Your task to perform on an android device: Empty the shopping cart on costco. Add usb-c to the cart on costco, then select checkout. Image 0: 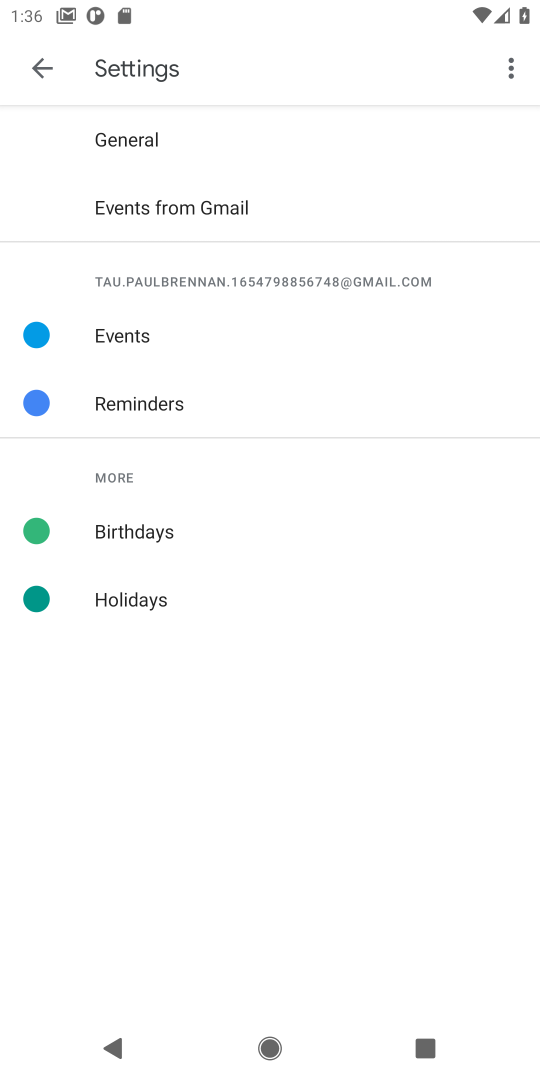
Step 0: press home button
Your task to perform on an android device: Empty the shopping cart on costco. Add usb-c to the cart on costco, then select checkout. Image 1: 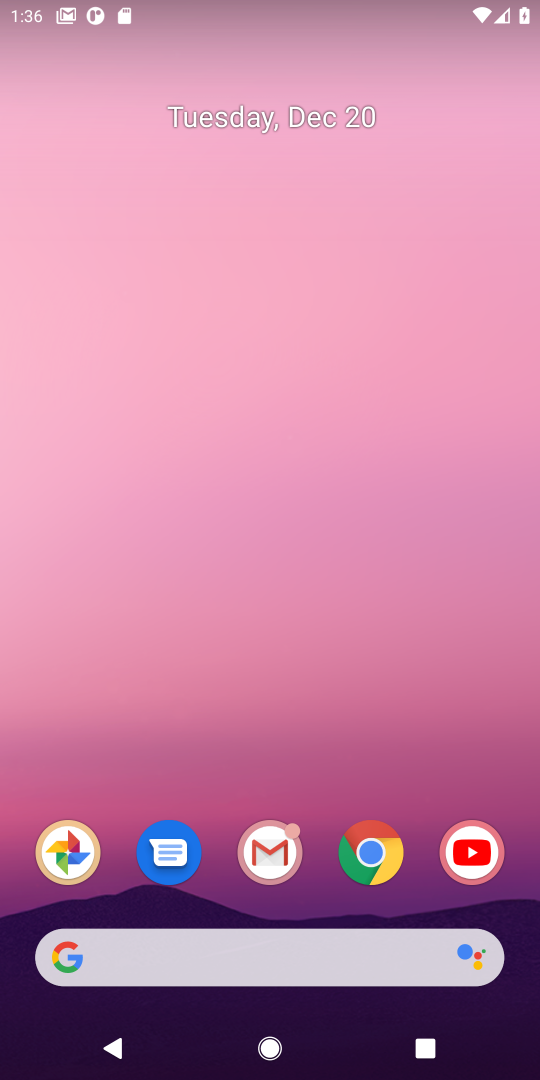
Step 1: click (358, 862)
Your task to perform on an android device: Empty the shopping cart on costco. Add usb-c to the cart on costco, then select checkout. Image 2: 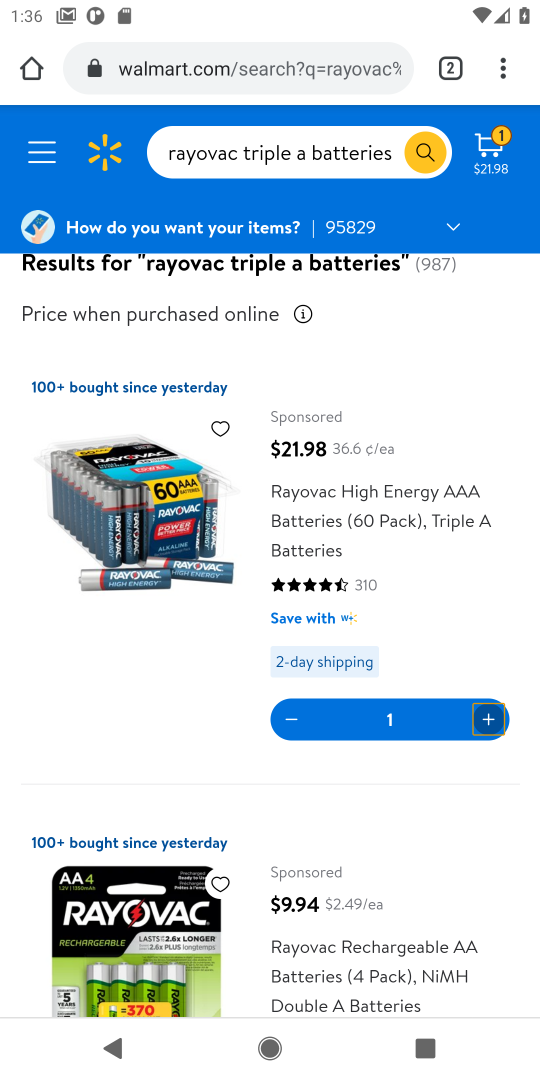
Step 2: click (204, 71)
Your task to perform on an android device: Empty the shopping cart on costco. Add usb-c to the cart on costco, then select checkout. Image 3: 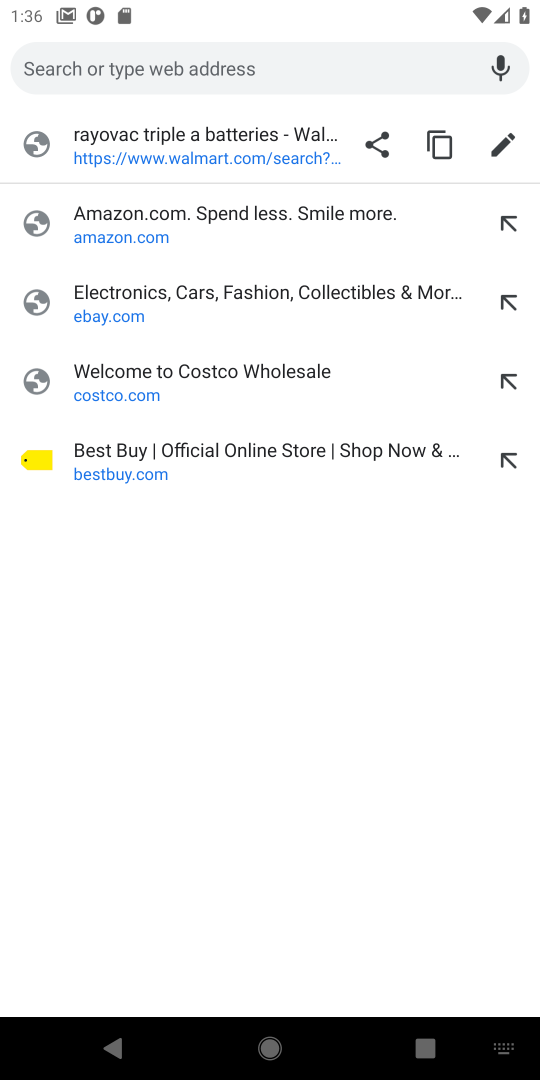
Step 3: click (93, 357)
Your task to perform on an android device: Empty the shopping cart on costco. Add usb-c to the cart on costco, then select checkout. Image 4: 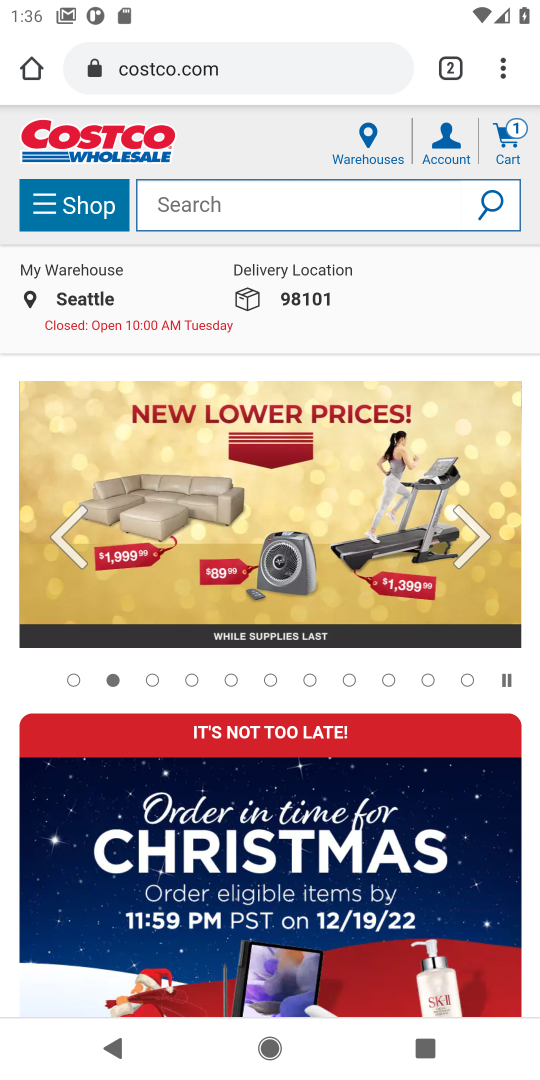
Step 4: click (506, 149)
Your task to perform on an android device: Empty the shopping cart on costco. Add usb-c to the cart on costco, then select checkout. Image 5: 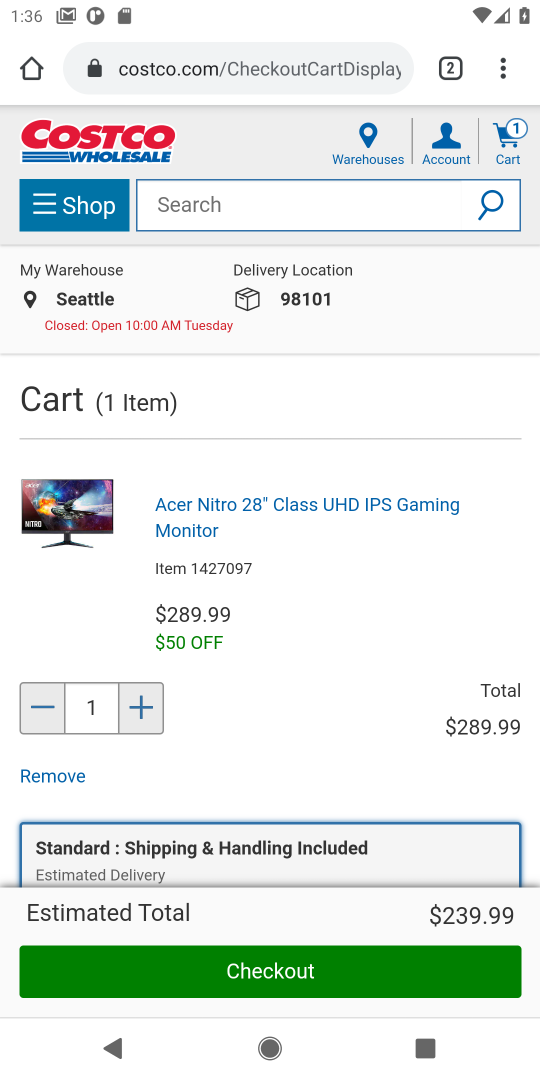
Step 5: drag from (233, 681) to (236, 393)
Your task to perform on an android device: Empty the shopping cart on costco. Add usb-c to the cart on costco, then select checkout. Image 6: 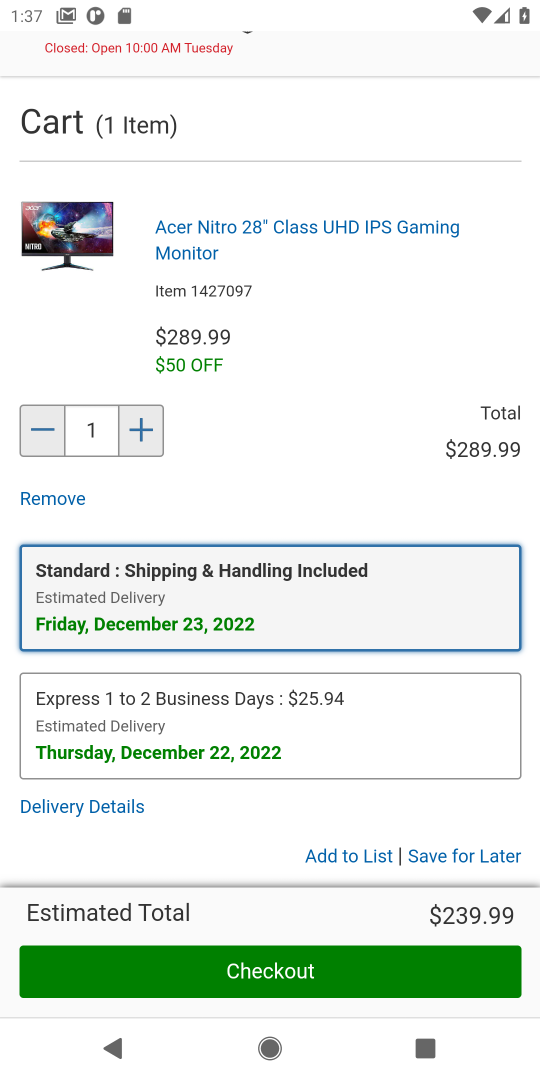
Step 6: click (494, 863)
Your task to perform on an android device: Empty the shopping cart on costco. Add usb-c to the cart on costco, then select checkout. Image 7: 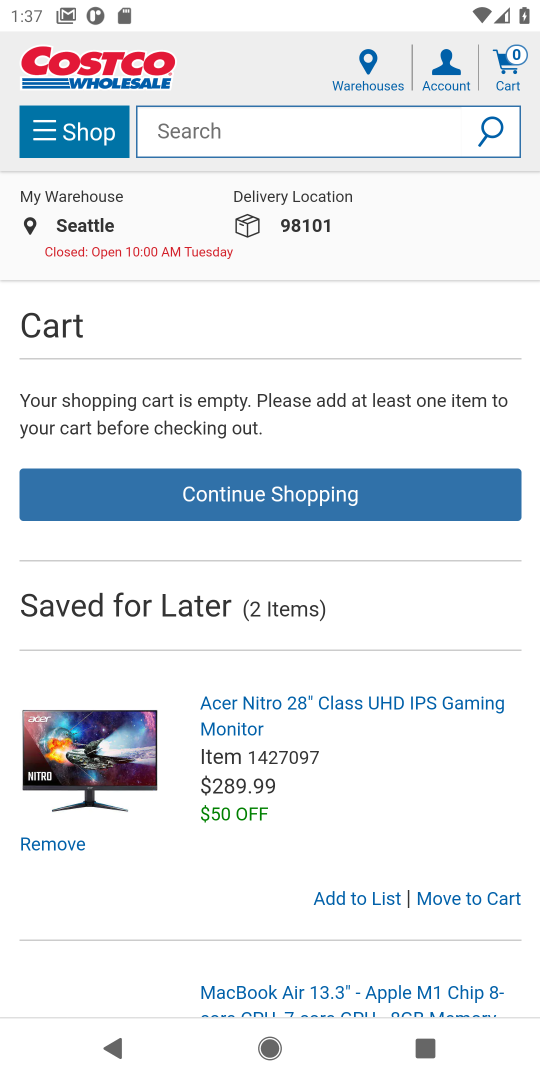
Step 7: click (238, 142)
Your task to perform on an android device: Empty the shopping cart on costco. Add usb-c to the cart on costco, then select checkout. Image 8: 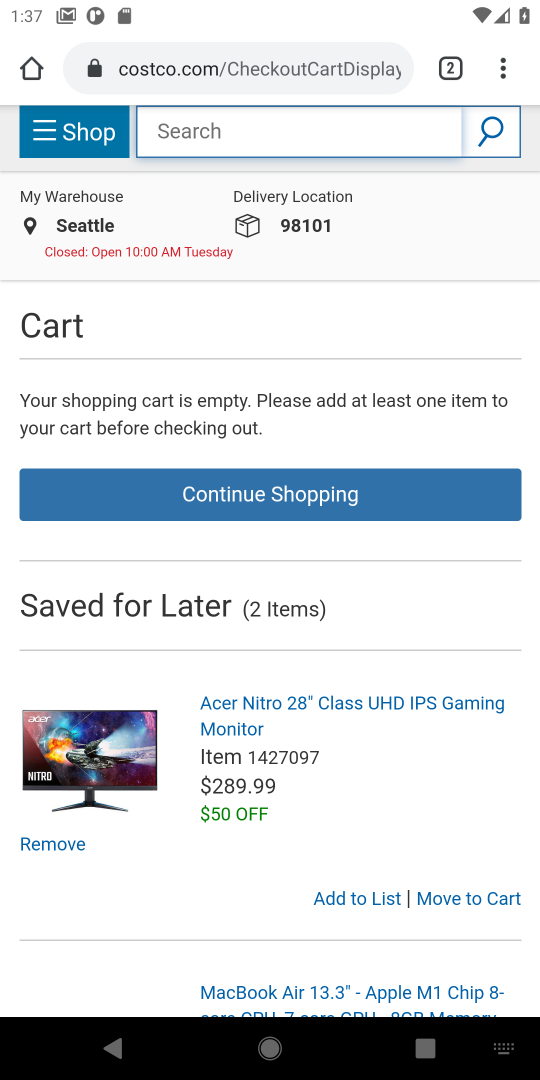
Step 8: type "usb-c"
Your task to perform on an android device: Empty the shopping cart on costco. Add usb-c to the cart on costco, then select checkout. Image 9: 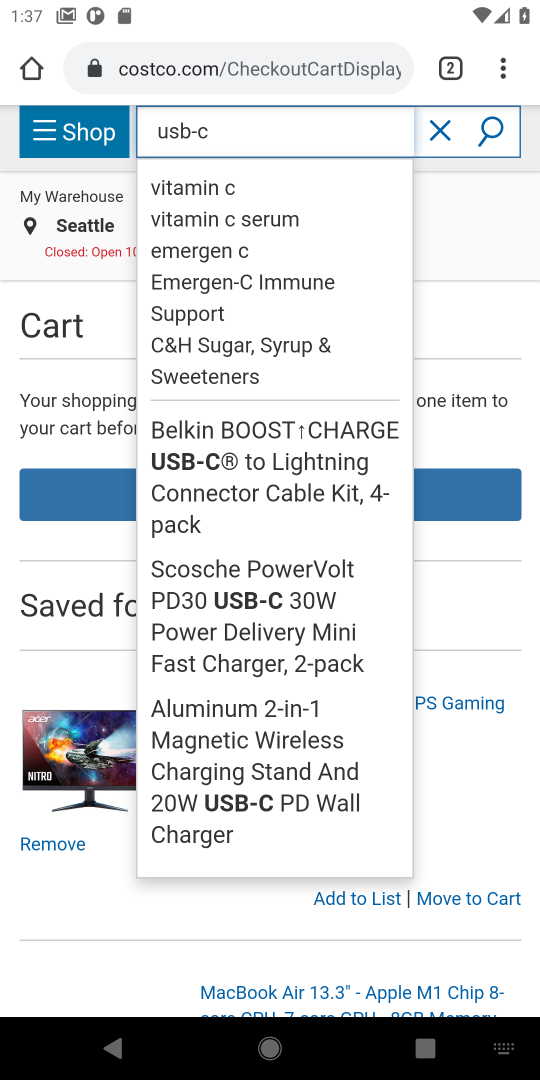
Step 9: click (500, 138)
Your task to perform on an android device: Empty the shopping cart on costco. Add usb-c to the cart on costco, then select checkout. Image 10: 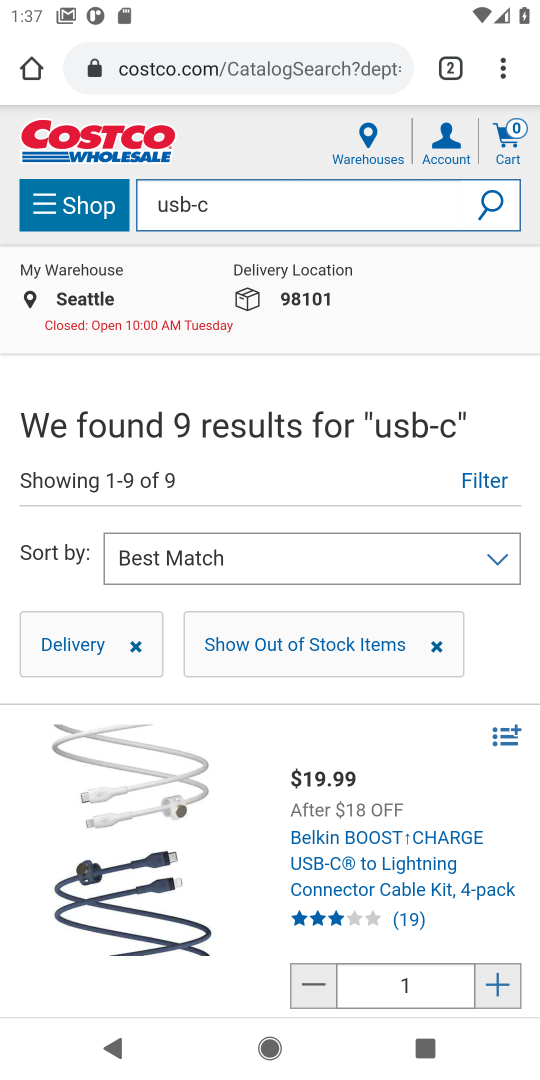
Step 10: drag from (163, 740) to (169, 467)
Your task to perform on an android device: Empty the shopping cart on costco. Add usb-c to the cart on costco, then select checkout. Image 11: 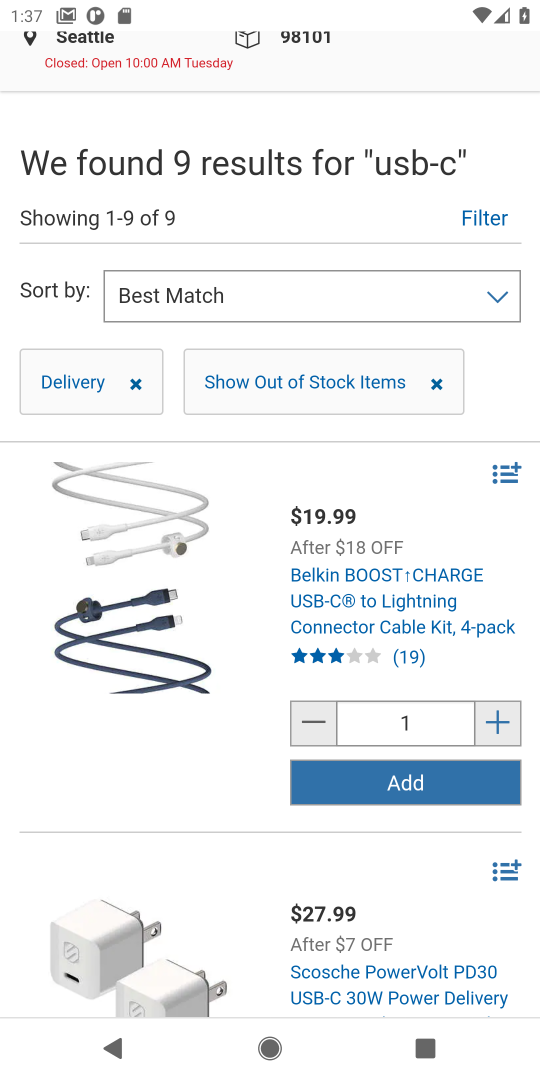
Step 11: click (365, 792)
Your task to perform on an android device: Empty the shopping cart on costco. Add usb-c to the cart on costco, then select checkout. Image 12: 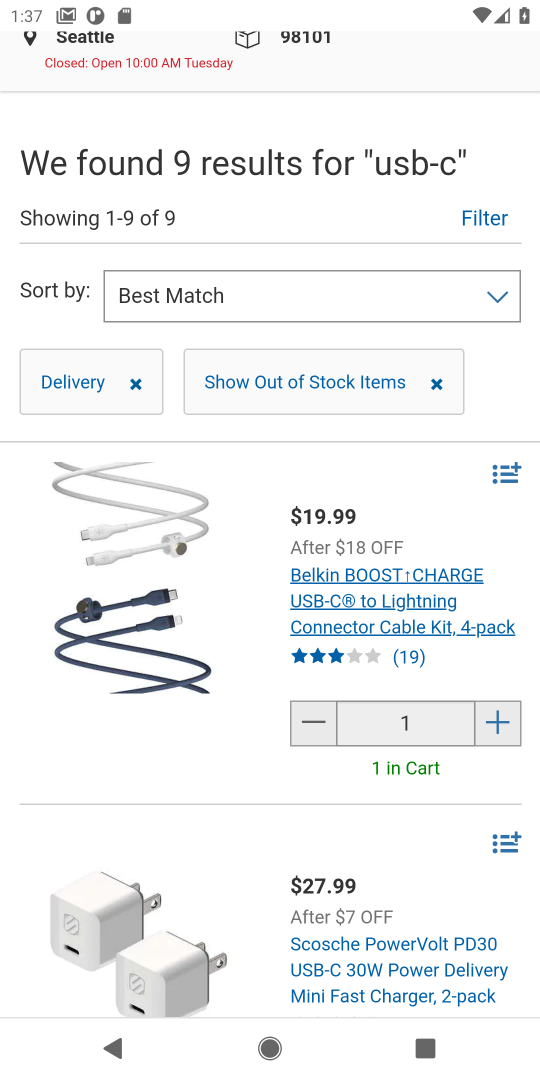
Step 12: drag from (254, 265) to (218, 591)
Your task to perform on an android device: Empty the shopping cart on costco. Add usb-c to the cart on costco, then select checkout. Image 13: 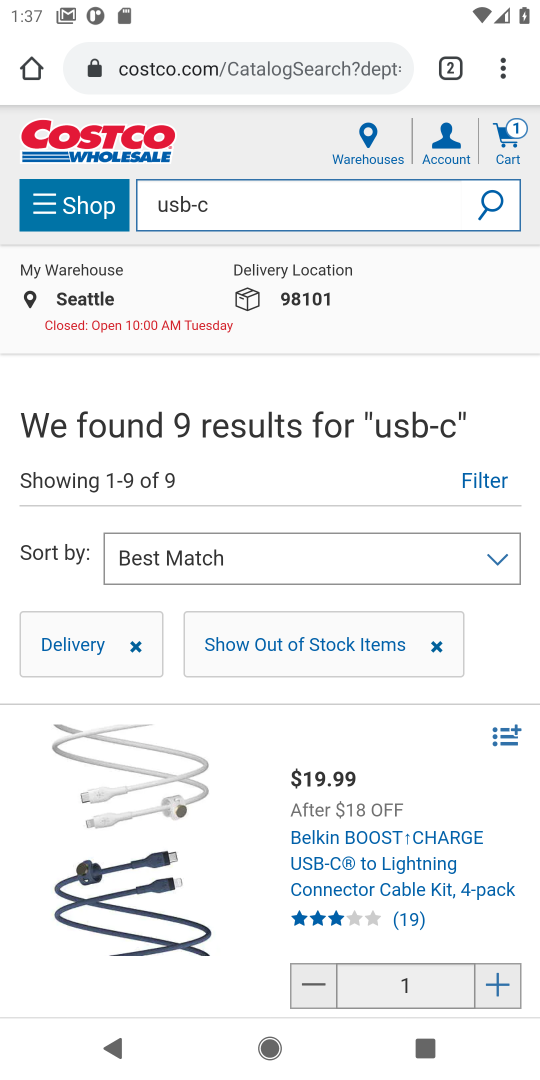
Step 13: click (507, 143)
Your task to perform on an android device: Empty the shopping cart on costco. Add usb-c to the cart on costco, then select checkout. Image 14: 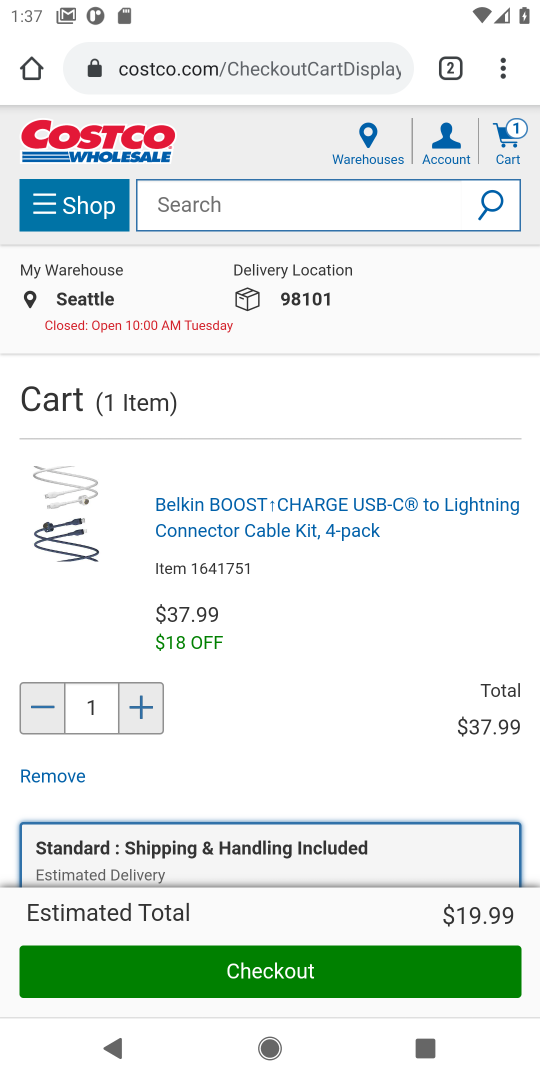
Step 14: click (259, 977)
Your task to perform on an android device: Empty the shopping cart on costco. Add usb-c to the cart on costco, then select checkout. Image 15: 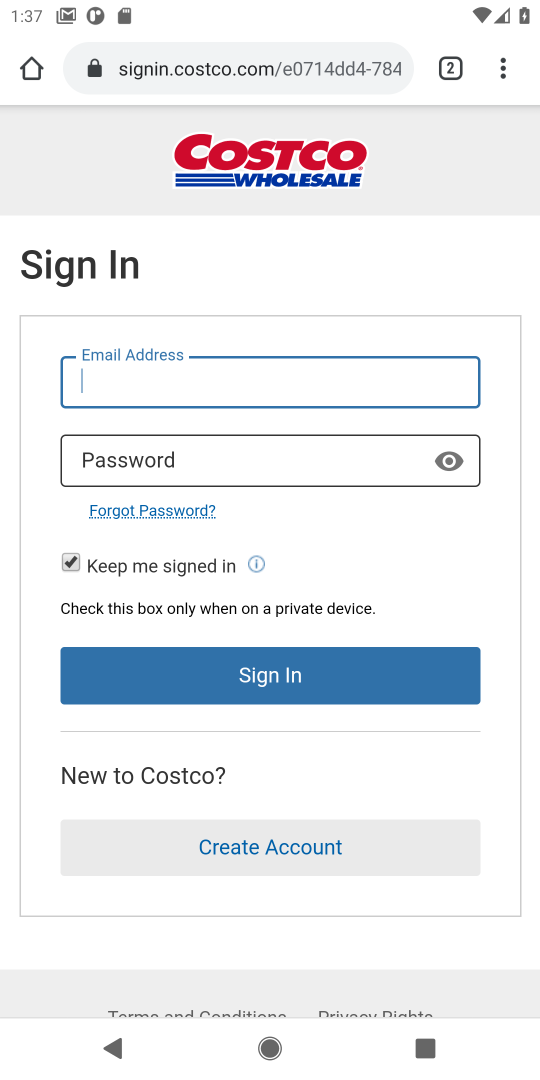
Step 15: task complete